Your task to perform on an android device: check google app version Image 0: 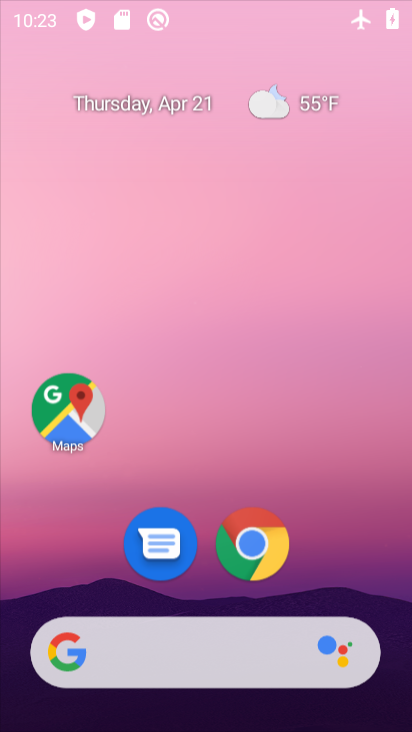
Step 0: click (346, 85)
Your task to perform on an android device: check google app version Image 1: 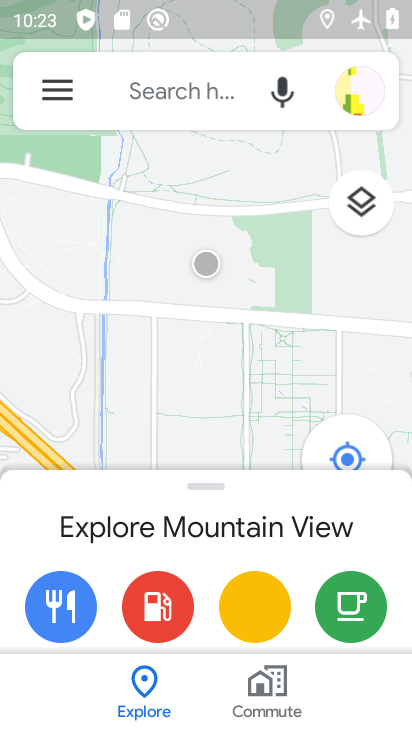
Step 1: press back button
Your task to perform on an android device: check google app version Image 2: 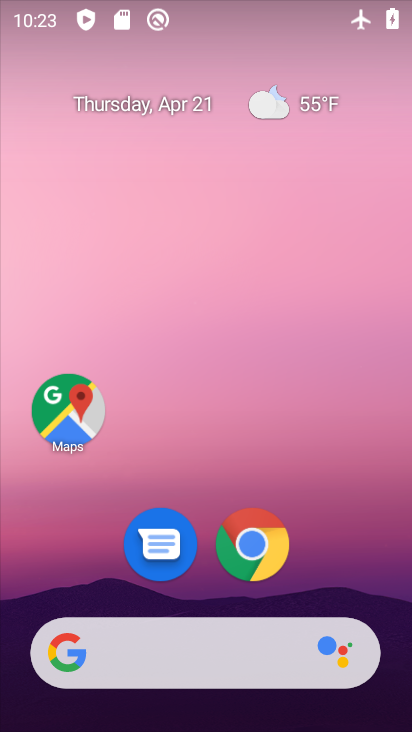
Step 2: drag from (317, 568) to (261, 7)
Your task to perform on an android device: check google app version Image 3: 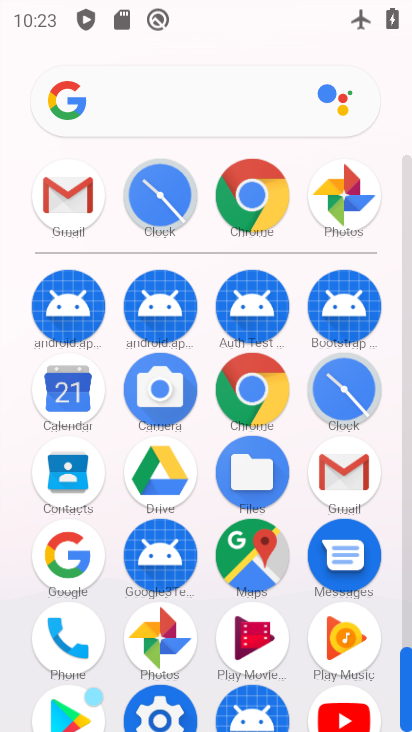
Step 3: click (65, 545)
Your task to perform on an android device: check google app version Image 4: 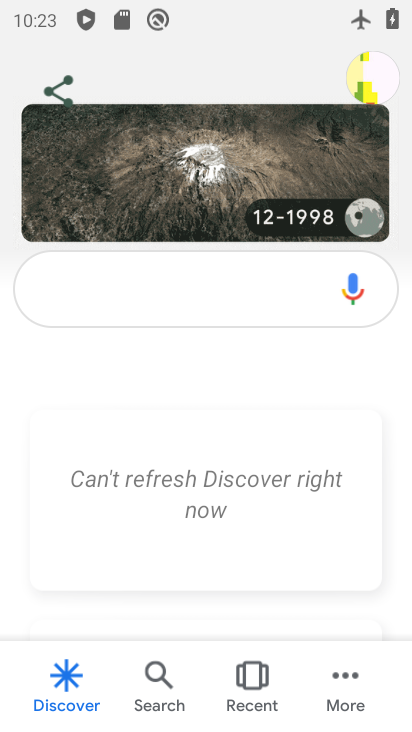
Step 4: click (349, 679)
Your task to perform on an android device: check google app version Image 5: 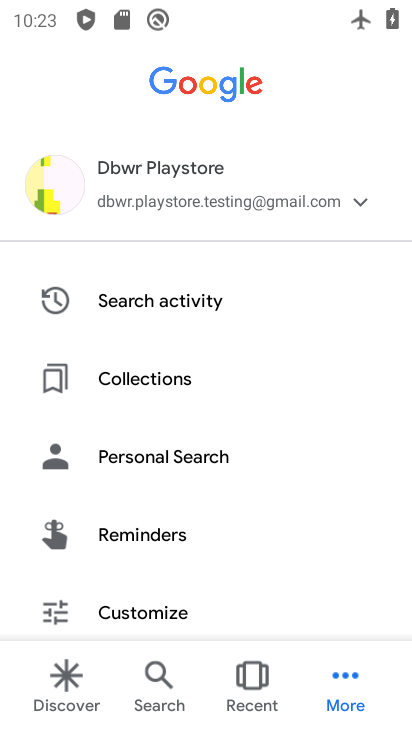
Step 5: drag from (232, 557) to (254, 210)
Your task to perform on an android device: check google app version Image 6: 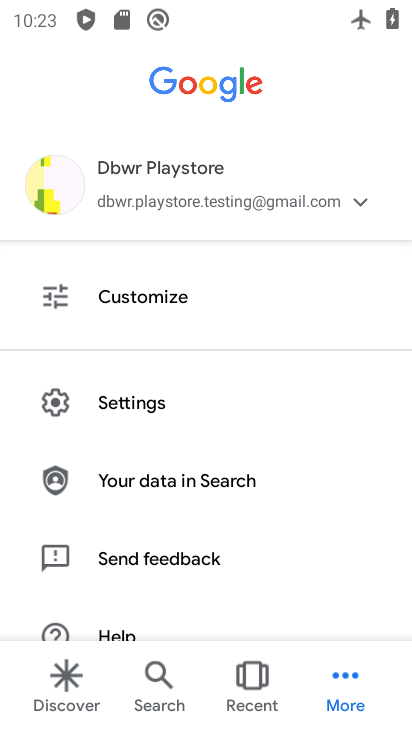
Step 6: click (118, 398)
Your task to perform on an android device: check google app version Image 7: 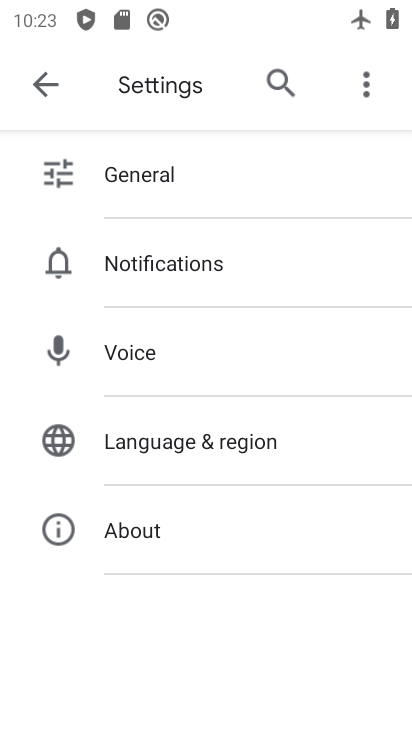
Step 7: click (151, 523)
Your task to perform on an android device: check google app version Image 8: 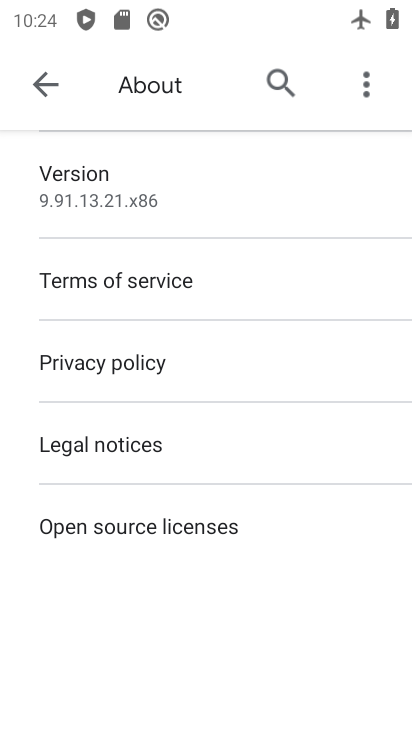
Step 8: task complete